Your task to perform on an android device: Open Google Chrome and click the shortcut for Amazon.com Image 0: 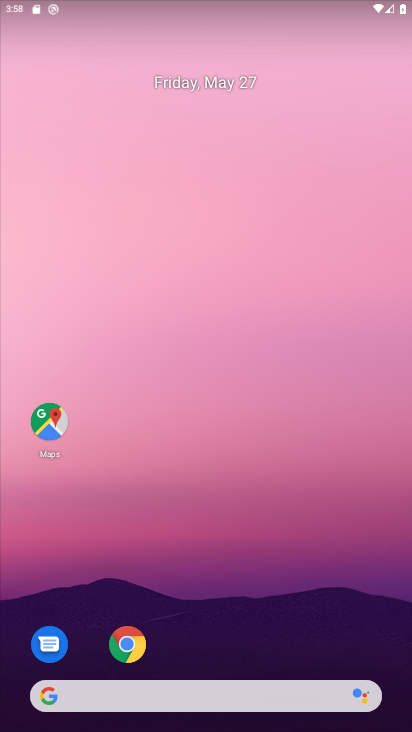
Step 0: click (134, 649)
Your task to perform on an android device: Open Google Chrome and click the shortcut for Amazon.com Image 1: 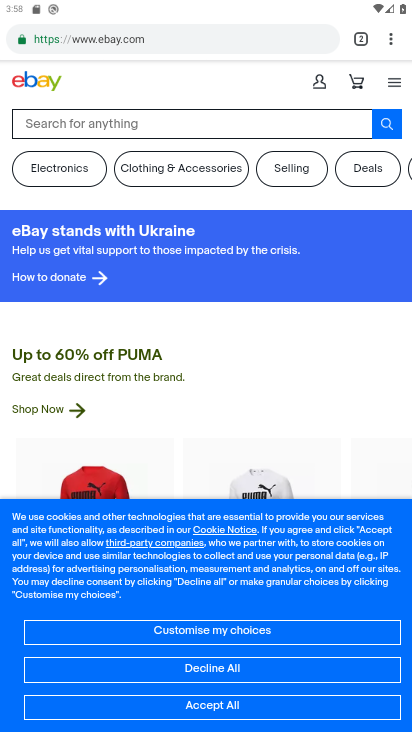
Step 1: click (362, 34)
Your task to perform on an android device: Open Google Chrome and click the shortcut for Amazon.com Image 2: 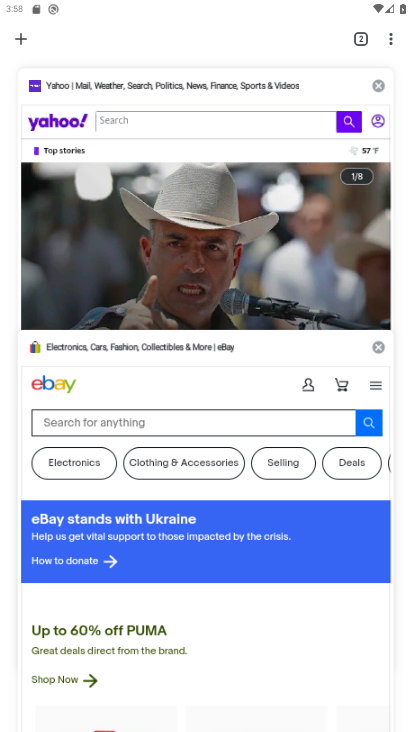
Step 2: click (21, 35)
Your task to perform on an android device: Open Google Chrome and click the shortcut for Amazon.com Image 3: 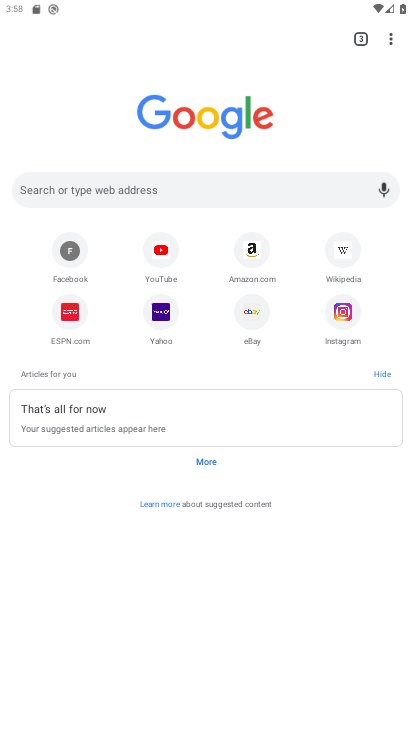
Step 3: click (248, 255)
Your task to perform on an android device: Open Google Chrome and click the shortcut for Amazon.com Image 4: 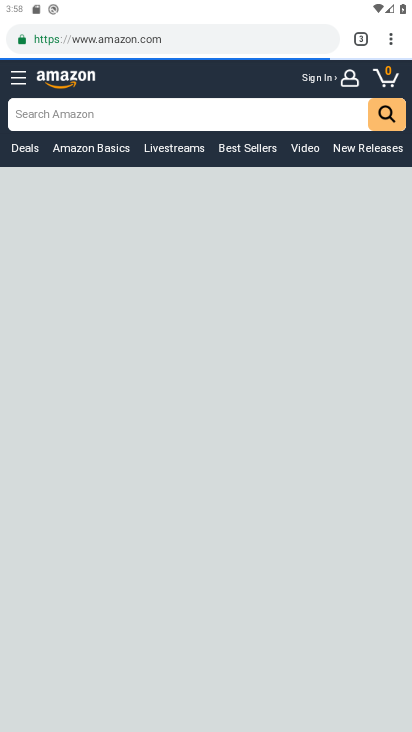
Step 4: task complete